Your task to perform on an android device: Open accessibility settings Image 0: 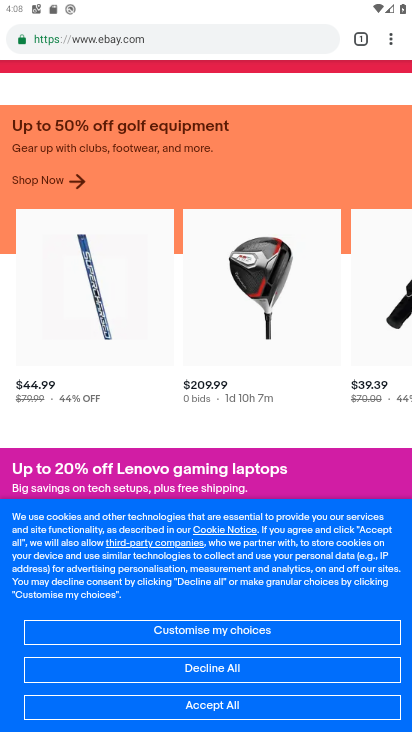
Step 0: press home button
Your task to perform on an android device: Open accessibility settings Image 1: 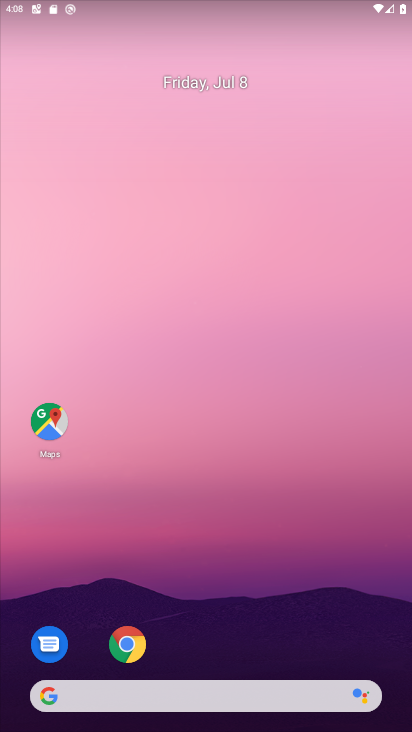
Step 1: drag from (376, 652) to (311, 194)
Your task to perform on an android device: Open accessibility settings Image 2: 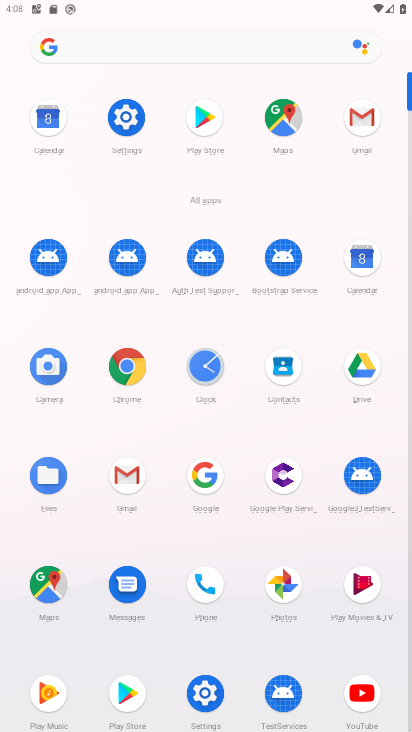
Step 2: click (203, 691)
Your task to perform on an android device: Open accessibility settings Image 3: 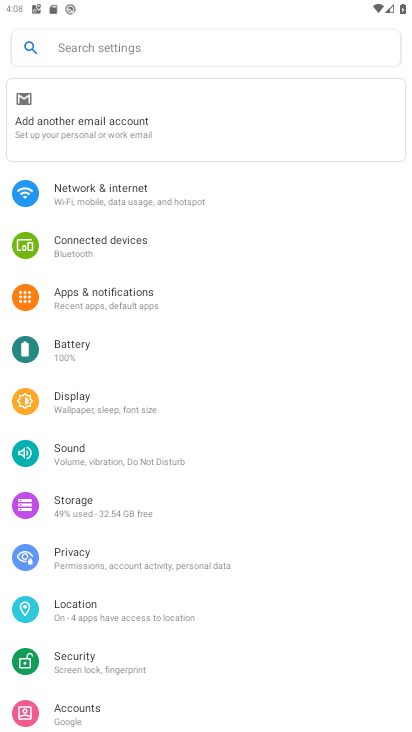
Step 3: drag from (210, 687) to (226, 350)
Your task to perform on an android device: Open accessibility settings Image 4: 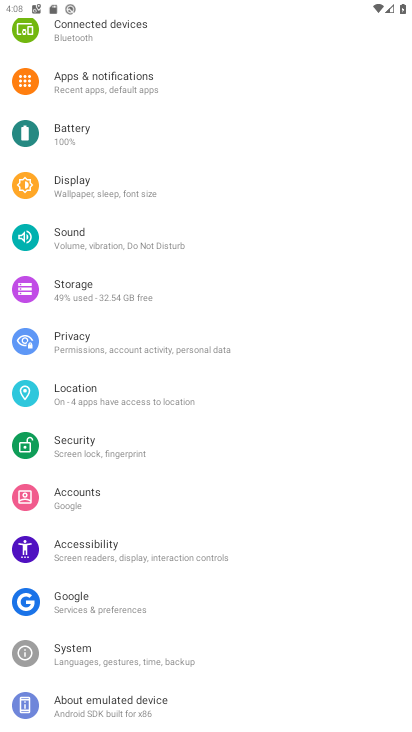
Step 4: click (76, 548)
Your task to perform on an android device: Open accessibility settings Image 5: 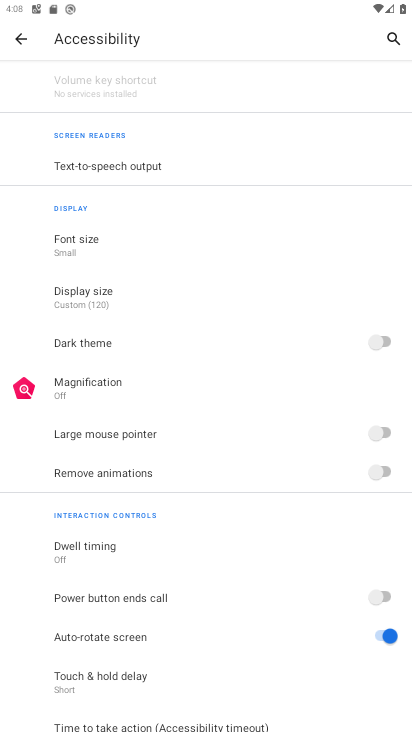
Step 5: task complete